Your task to perform on an android device: turn off sleep mode Image 0: 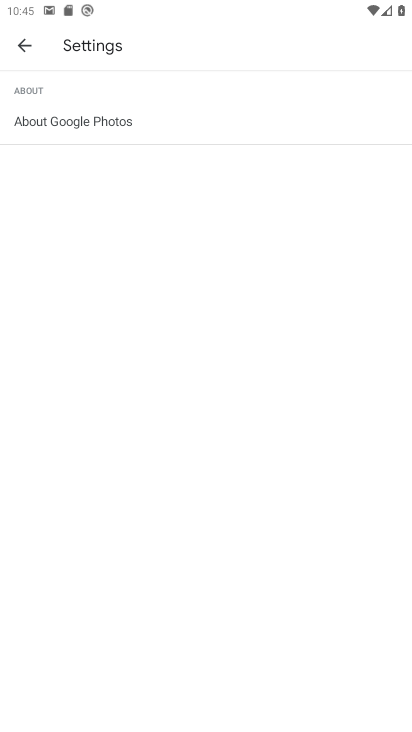
Step 0: press home button
Your task to perform on an android device: turn off sleep mode Image 1: 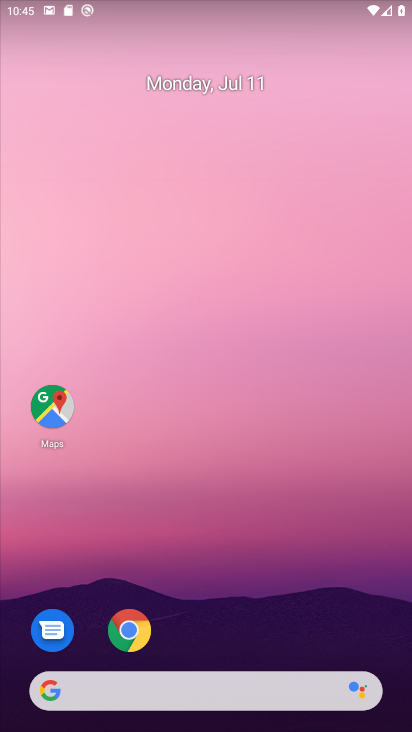
Step 1: drag from (220, 620) to (235, 34)
Your task to perform on an android device: turn off sleep mode Image 2: 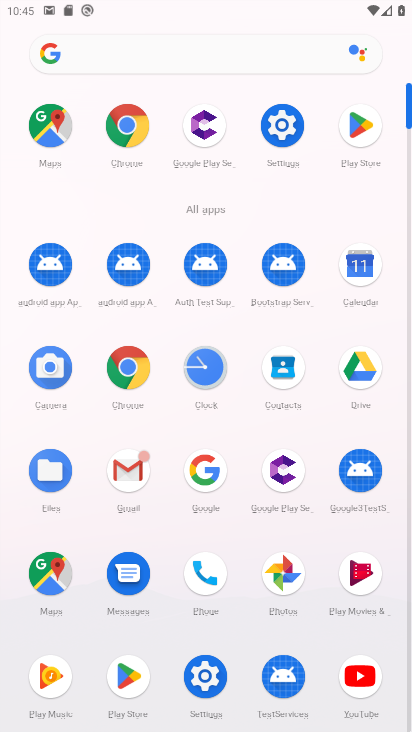
Step 2: click (294, 132)
Your task to perform on an android device: turn off sleep mode Image 3: 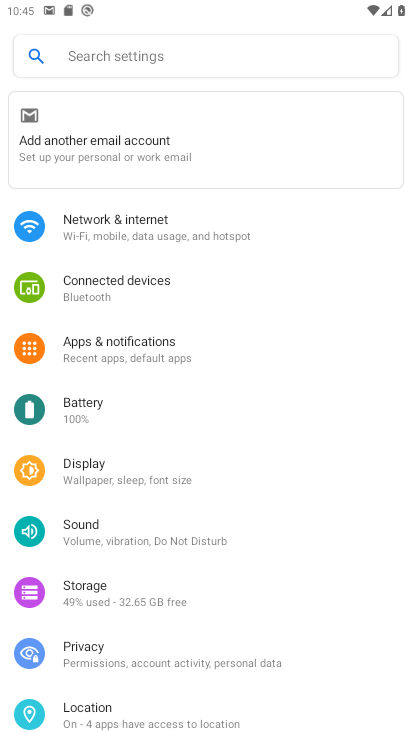
Step 3: click (147, 459)
Your task to perform on an android device: turn off sleep mode Image 4: 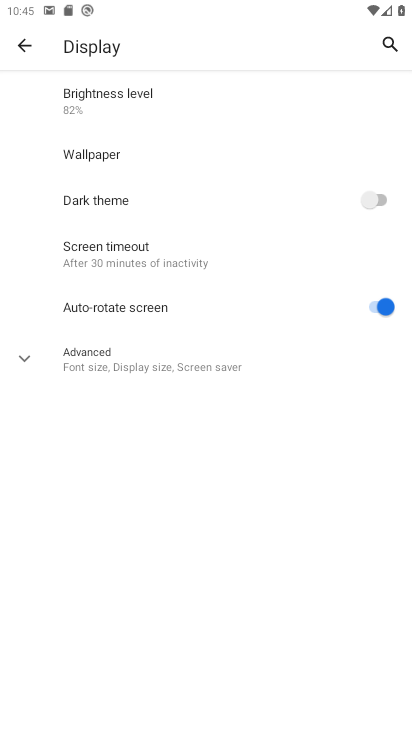
Step 4: click (180, 379)
Your task to perform on an android device: turn off sleep mode Image 5: 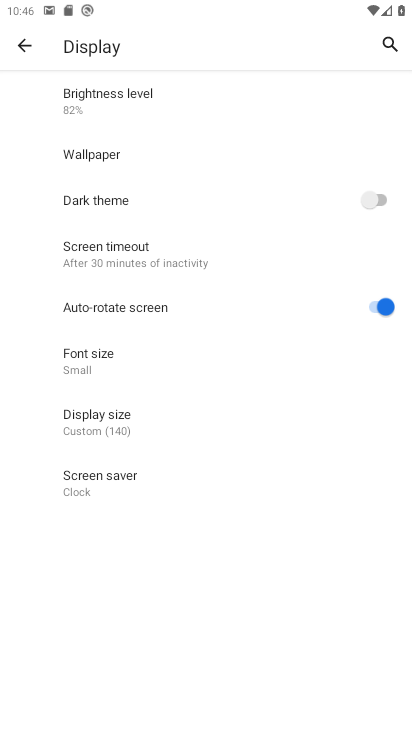
Step 5: task complete